Your task to perform on an android device: install app "Spotify" Image 0: 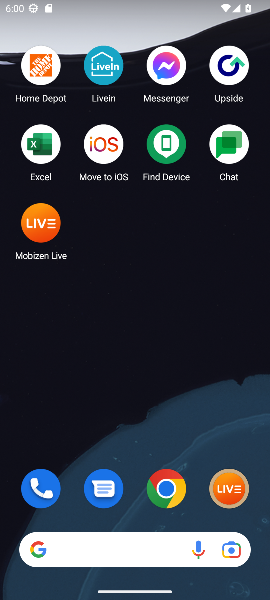
Step 0: click (119, 530)
Your task to perform on an android device: install app "Spotify" Image 1: 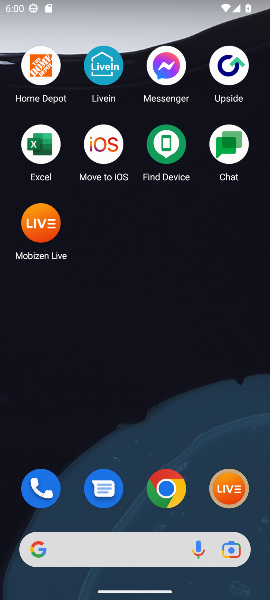
Step 1: task complete